Your task to perform on an android device: Go to calendar. Show me events next week Image 0: 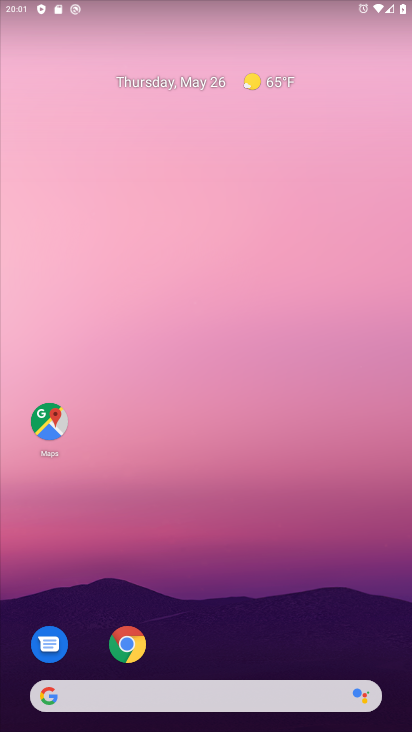
Step 0: drag from (218, 441) to (248, 322)
Your task to perform on an android device: Go to calendar. Show me events next week Image 1: 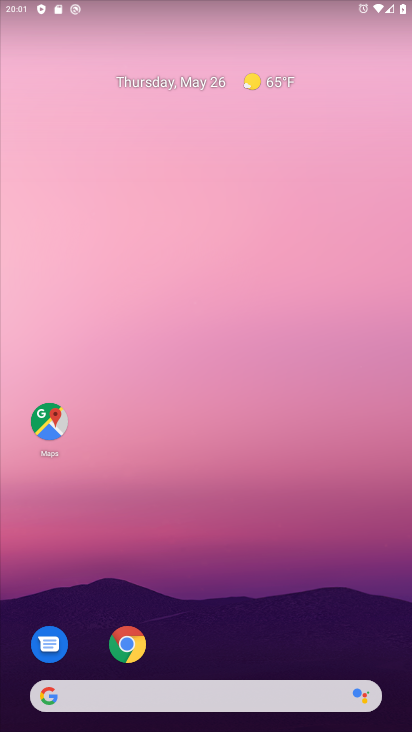
Step 1: drag from (227, 679) to (237, 2)
Your task to perform on an android device: Go to calendar. Show me events next week Image 2: 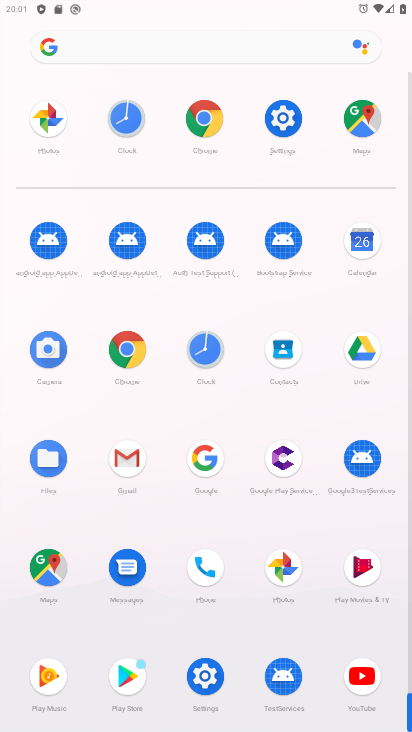
Step 2: click (369, 225)
Your task to perform on an android device: Go to calendar. Show me events next week Image 3: 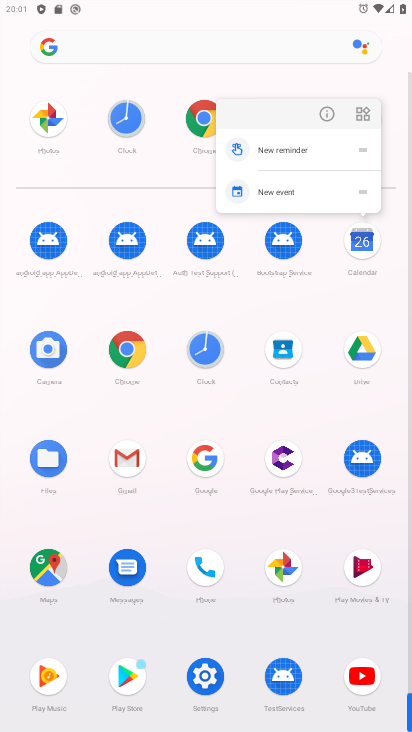
Step 3: click (317, 114)
Your task to perform on an android device: Go to calendar. Show me events next week Image 4: 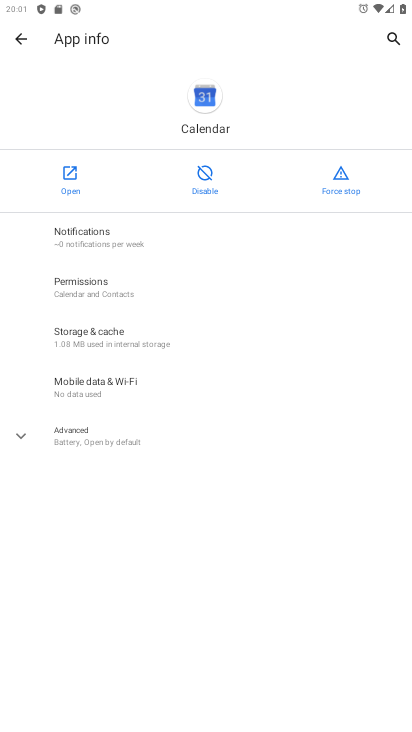
Step 4: click (67, 177)
Your task to perform on an android device: Go to calendar. Show me events next week Image 5: 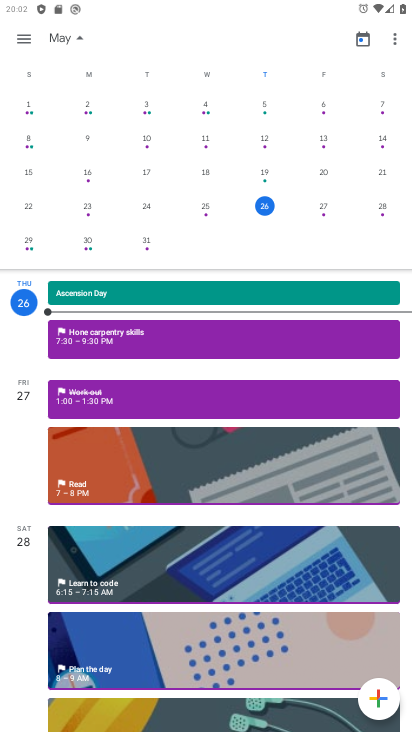
Step 5: click (295, 212)
Your task to perform on an android device: Go to calendar. Show me events next week Image 6: 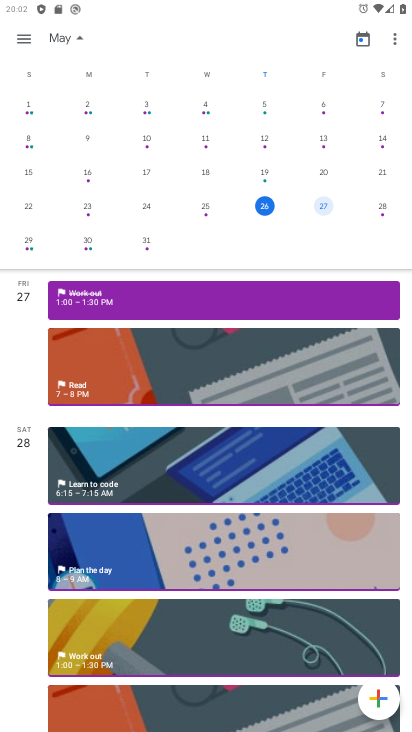
Step 6: click (324, 212)
Your task to perform on an android device: Go to calendar. Show me events next week Image 7: 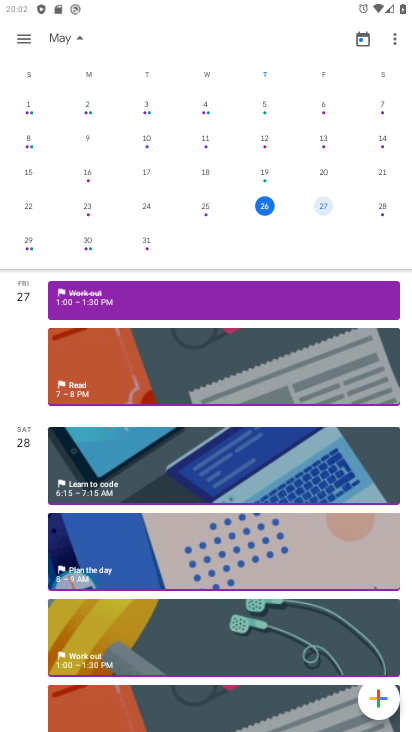
Step 7: drag from (273, 274) to (375, 61)
Your task to perform on an android device: Go to calendar. Show me events next week Image 8: 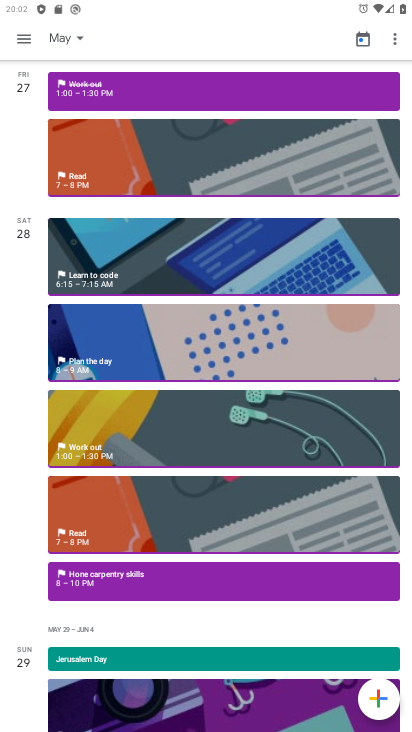
Step 8: drag from (299, 206) to (329, 545)
Your task to perform on an android device: Go to calendar. Show me events next week Image 9: 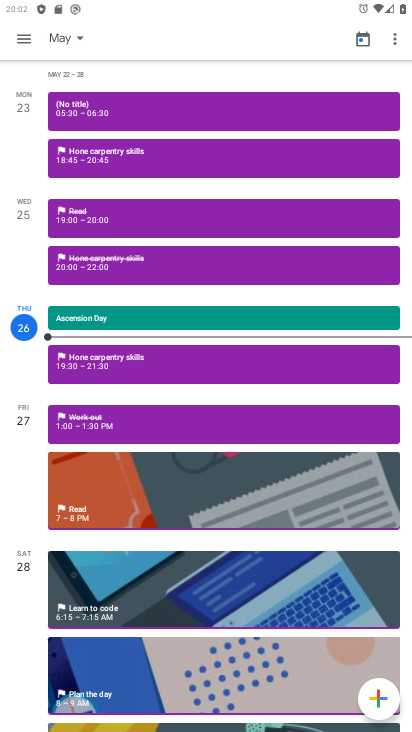
Step 9: drag from (285, 186) to (364, 564)
Your task to perform on an android device: Go to calendar. Show me events next week Image 10: 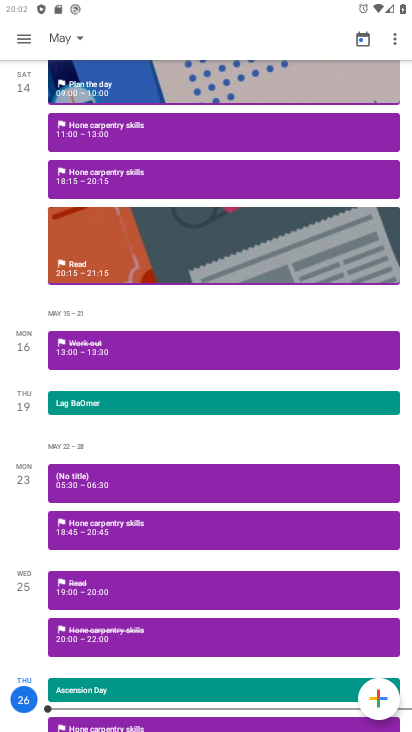
Step 10: drag from (241, 308) to (328, 688)
Your task to perform on an android device: Go to calendar. Show me events next week Image 11: 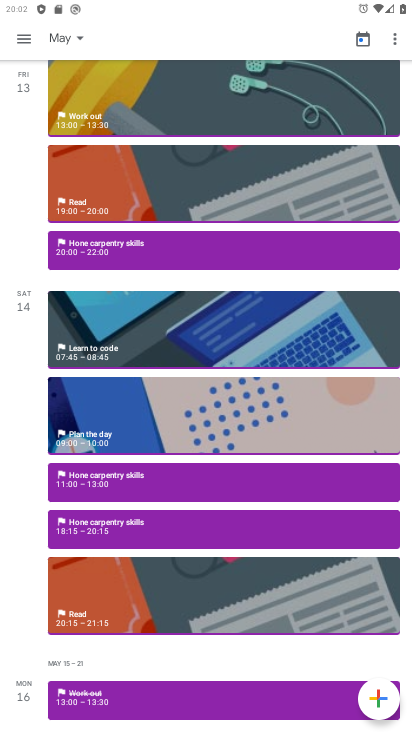
Step 11: click (76, 41)
Your task to perform on an android device: Go to calendar. Show me events next week Image 12: 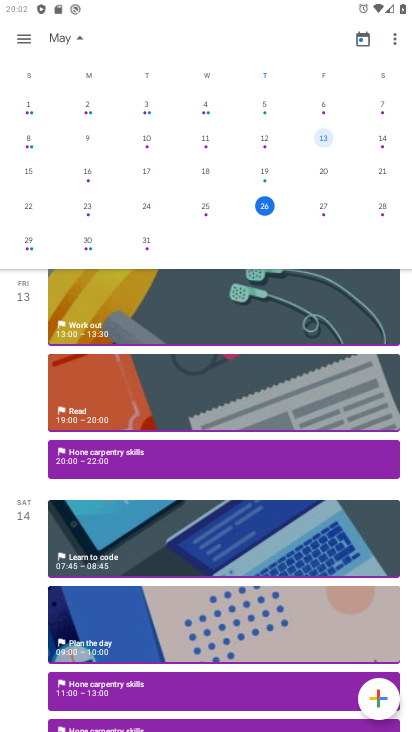
Step 12: click (258, 207)
Your task to perform on an android device: Go to calendar. Show me events next week Image 13: 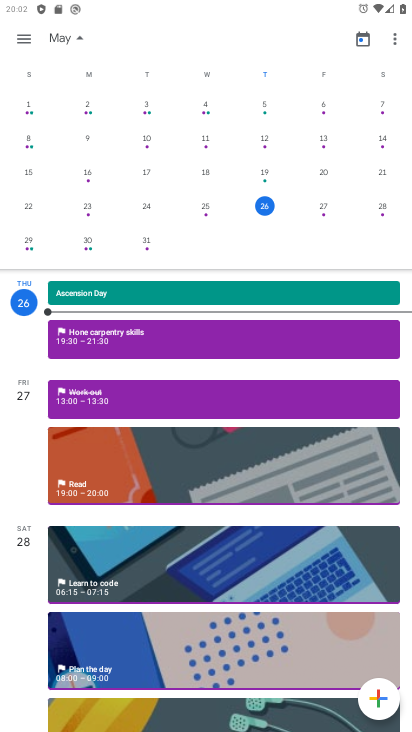
Step 13: click (389, 211)
Your task to perform on an android device: Go to calendar. Show me events next week Image 14: 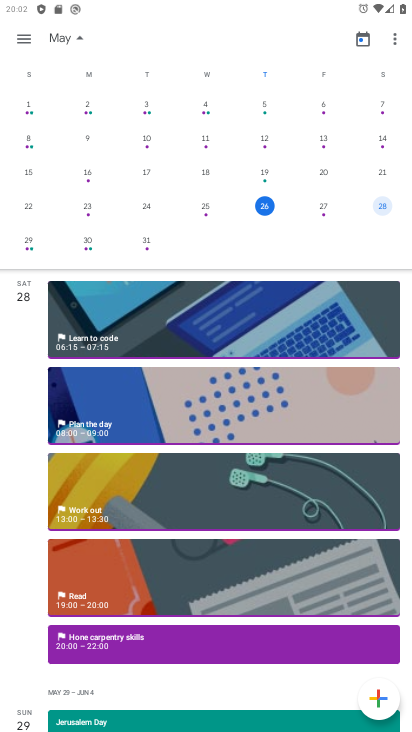
Step 14: click (84, 254)
Your task to perform on an android device: Go to calendar. Show me events next week Image 15: 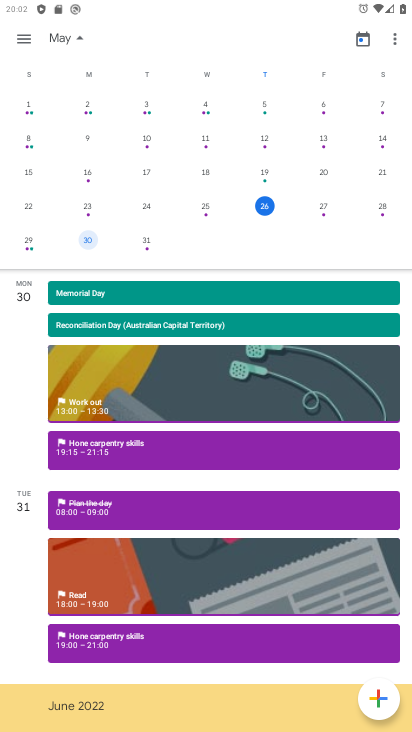
Step 15: task complete